Your task to perform on an android device: What's the weather? Image 0: 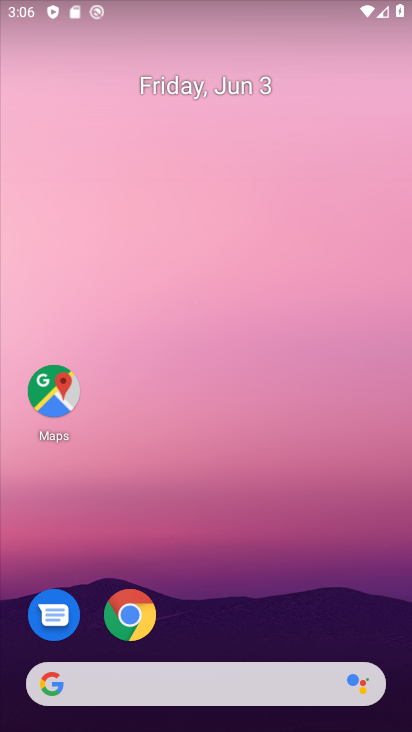
Step 0: click (222, 673)
Your task to perform on an android device: What's the weather? Image 1: 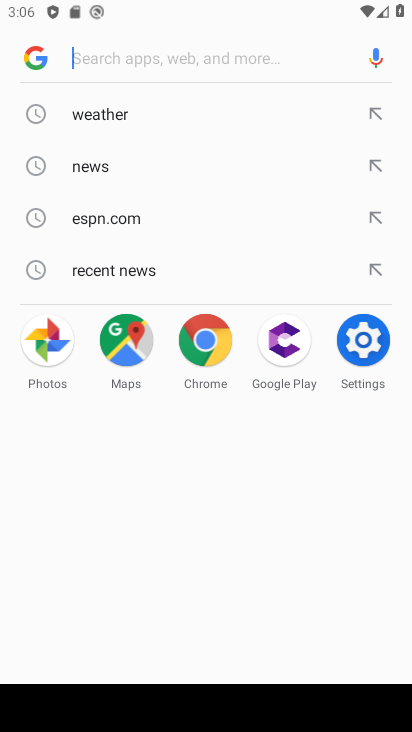
Step 1: click (160, 120)
Your task to perform on an android device: What's the weather? Image 2: 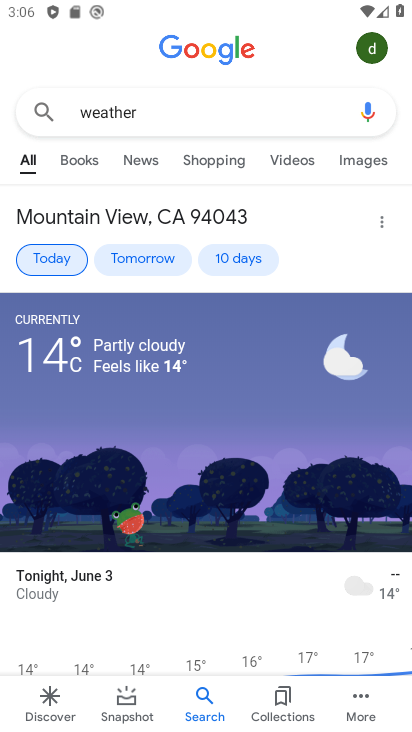
Step 2: task complete